Your task to perform on an android device: check battery use Image 0: 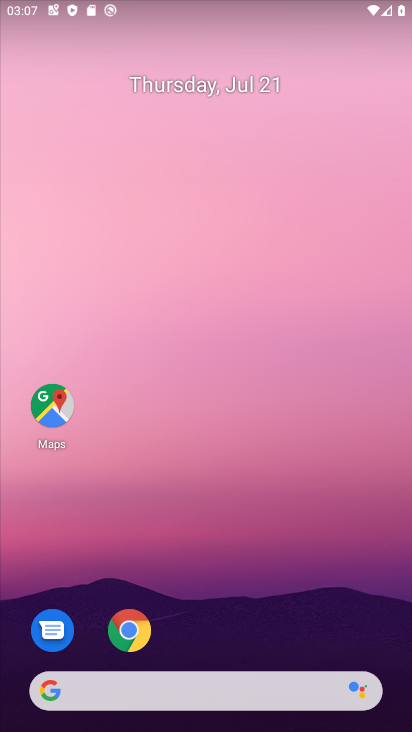
Step 0: drag from (210, 5) to (206, 475)
Your task to perform on an android device: check battery use Image 1: 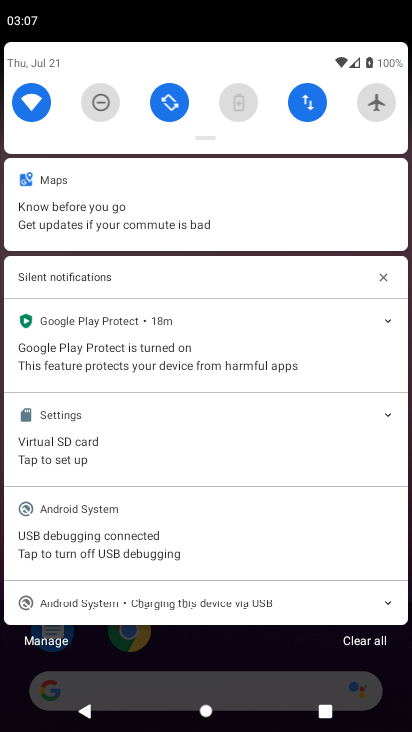
Step 1: click (232, 105)
Your task to perform on an android device: check battery use Image 2: 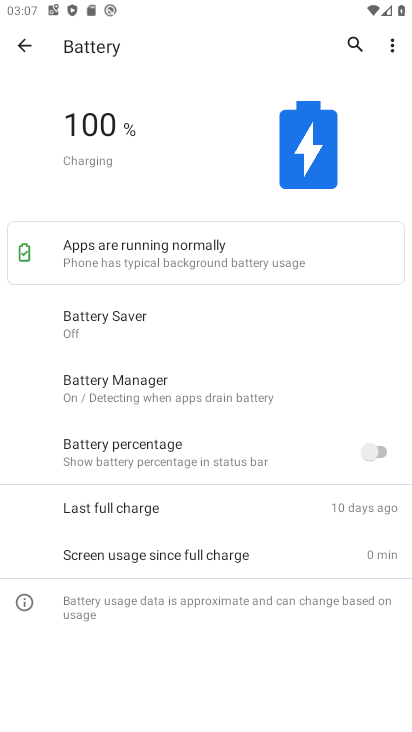
Step 2: click (400, 58)
Your task to perform on an android device: check battery use Image 3: 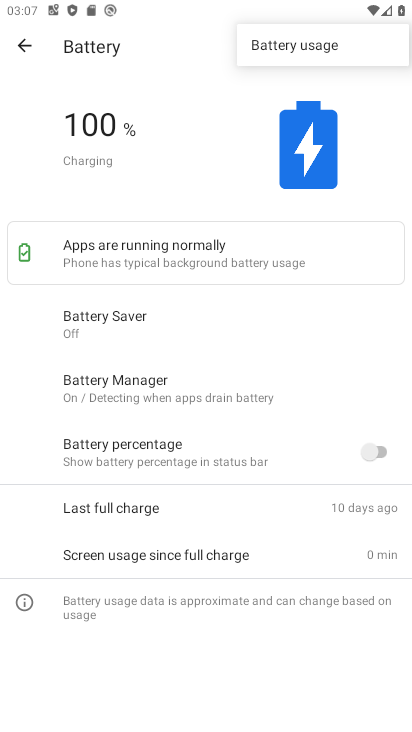
Step 3: click (288, 42)
Your task to perform on an android device: check battery use Image 4: 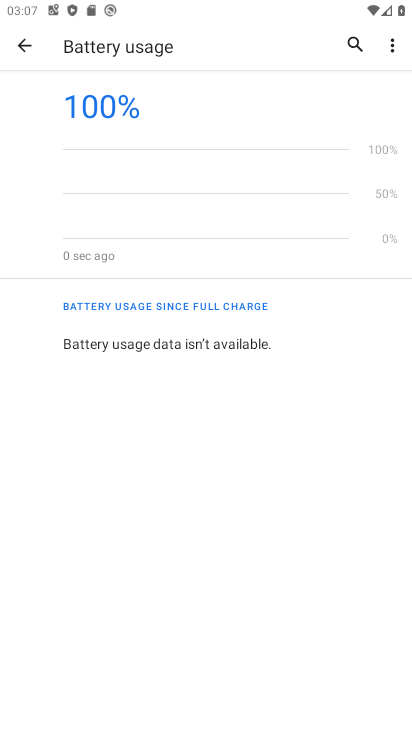
Step 4: task complete